Your task to perform on an android device: Show me recent news Image 0: 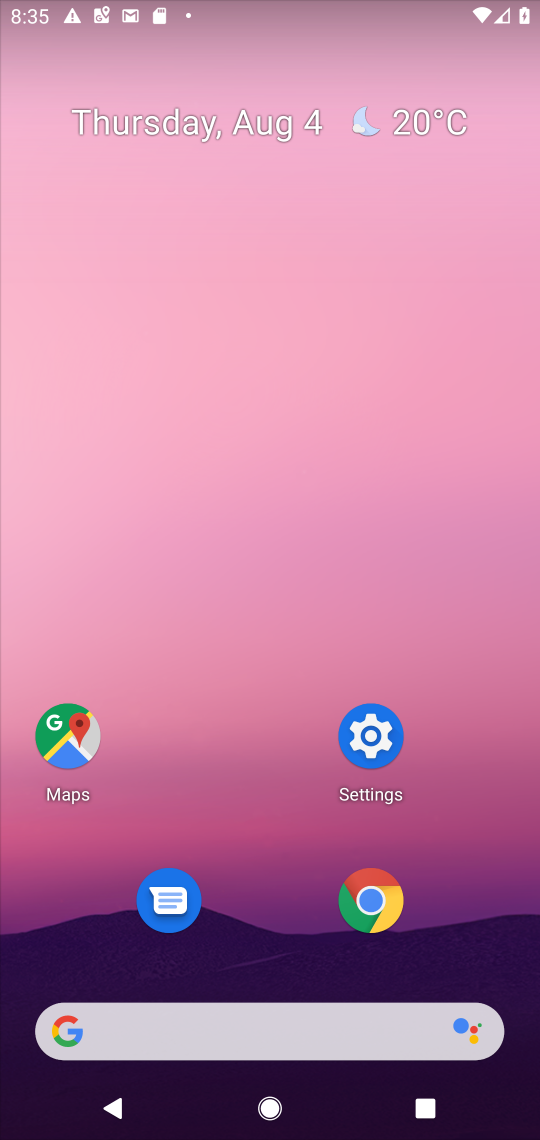
Step 0: click (187, 1019)
Your task to perform on an android device: Show me recent news Image 1: 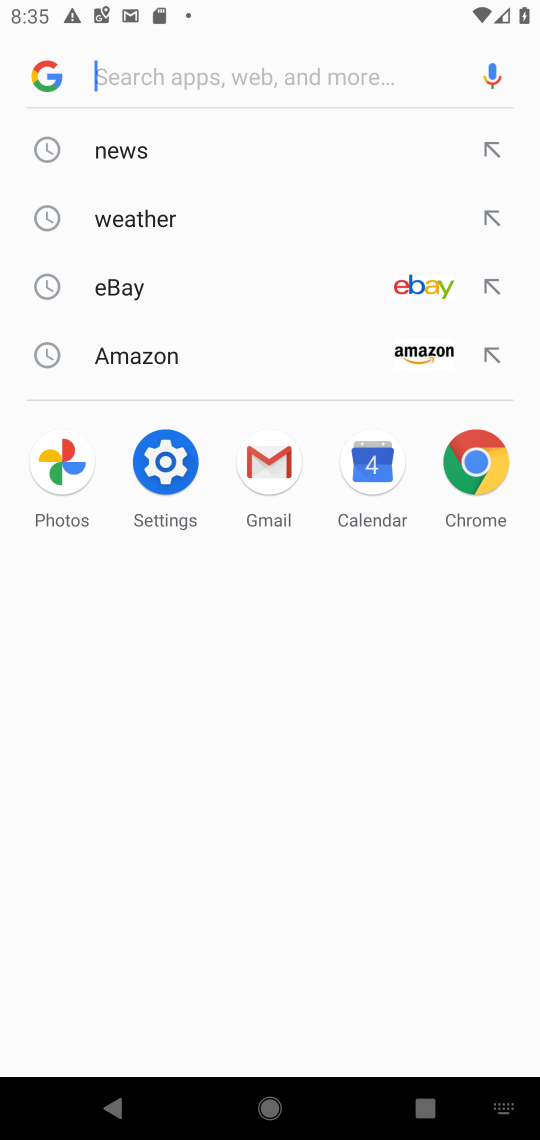
Step 1: click (123, 147)
Your task to perform on an android device: Show me recent news Image 2: 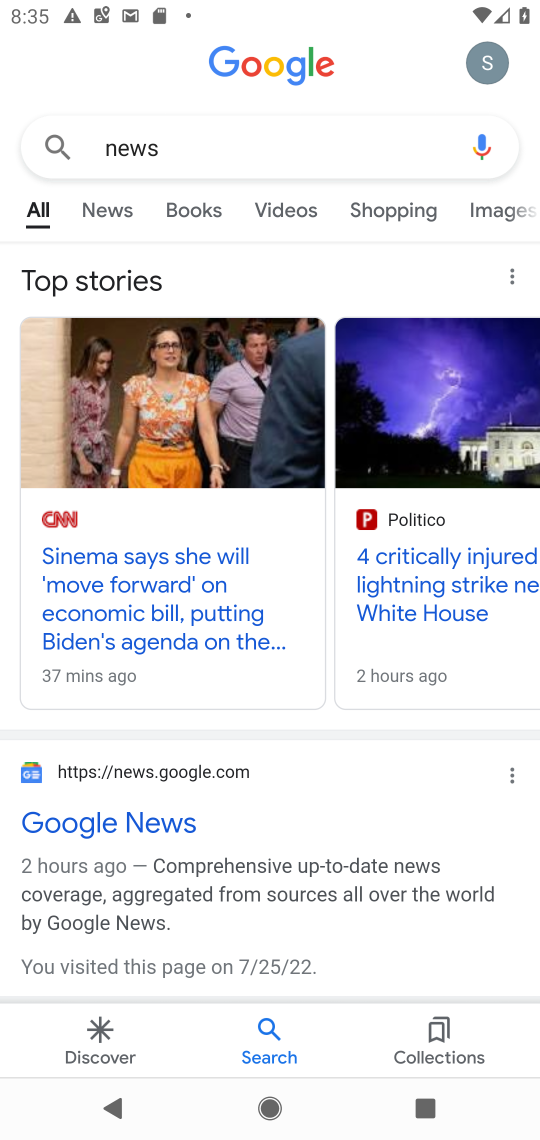
Step 2: click (112, 210)
Your task to perform on an android device: Show me recent news Image 3: 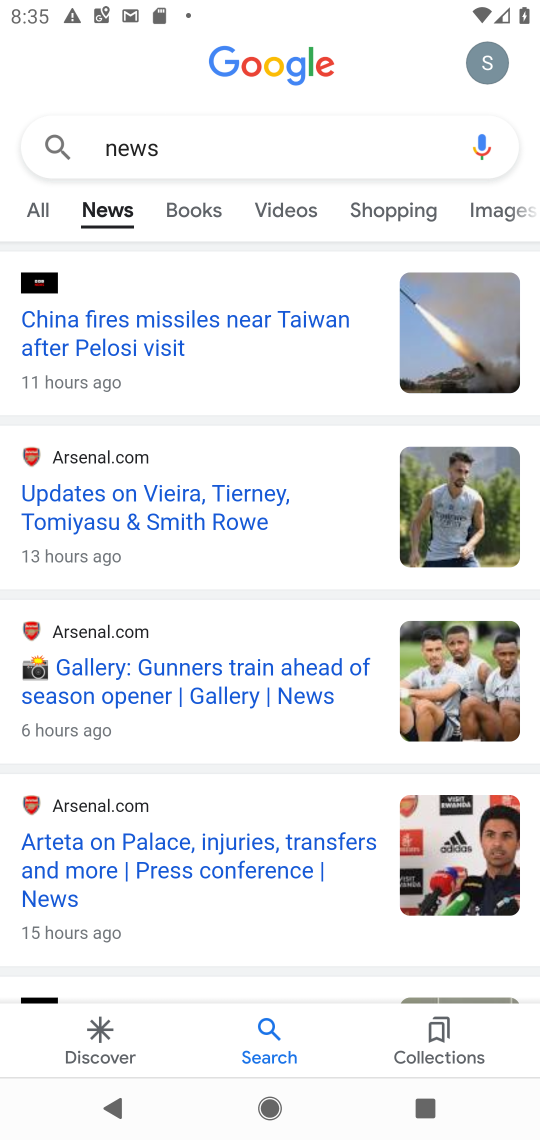
Step 3: task complete